Your task to perform on an android device: turn off picture-in-picture Image 0: 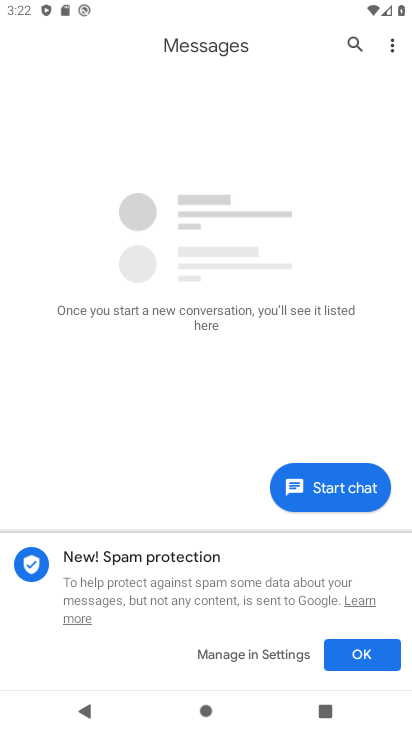
Step 0: press home button
Your task to perform on an android device: turn off picture-in-picture Image 1: 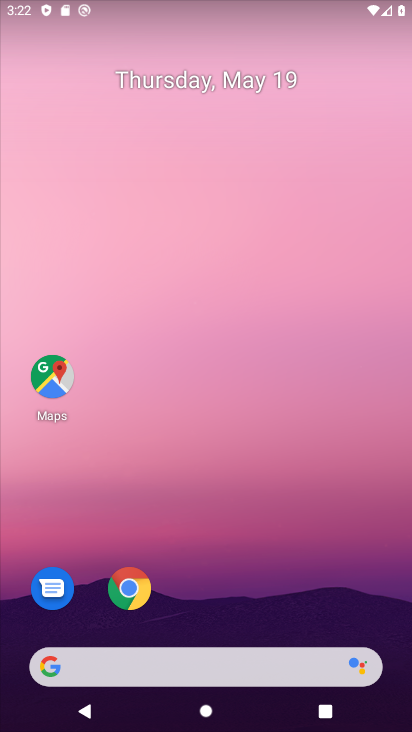
Step 1: drag from (237, 682) to (196, 35)
Your task to perform on an android device: turn off picture-in-picture Image 2: 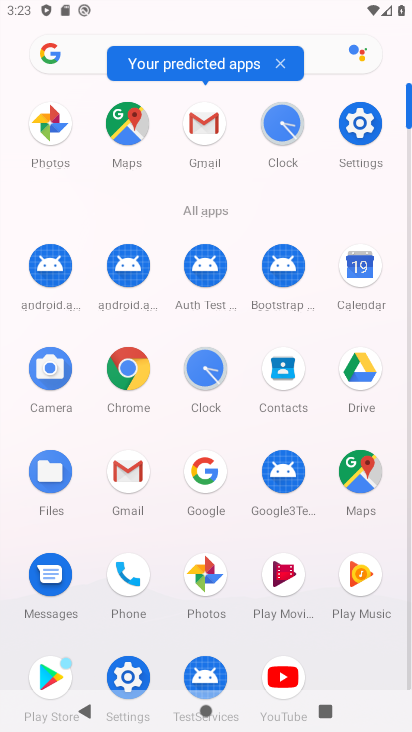
Step 2: click (361, 121)
Your task to perform on an android device: turn off picture-in-picture Image 3: 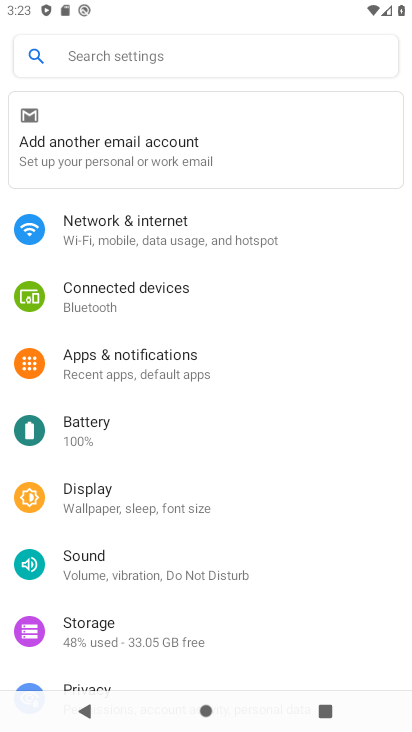
Step 3: click (181, 65)
Your task to perform on an android device: turn off picture-in-picture Image 4: 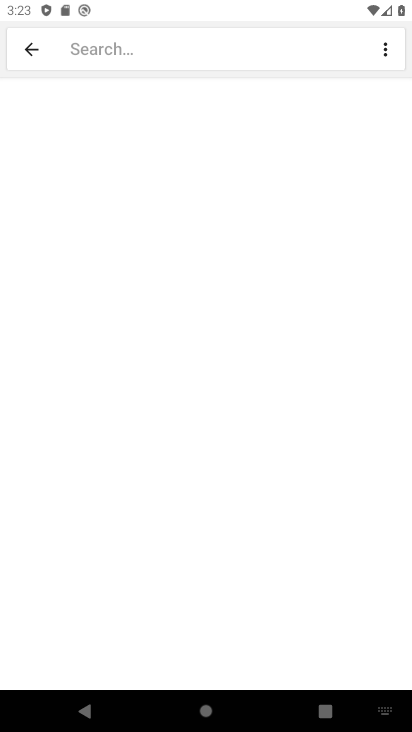
Step 4: drag from (378, 705) to (382, 625)
Your task to perform on an android device: turn off picture-in-picture Image 5: 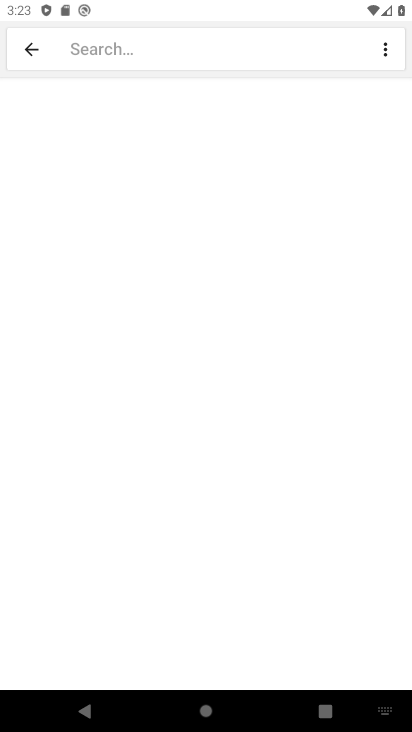
Step 5: click (388, 710)
Your task to perform on an android device: turn off picture-in-picture Image 6: 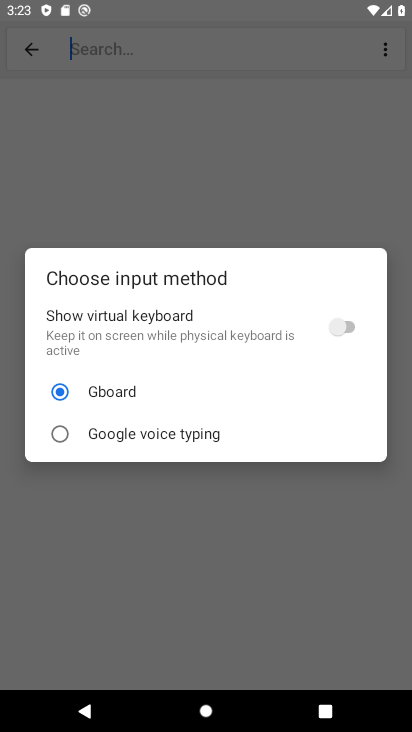
Step 6: click (342, 323)
Your task to perform on an android device: turn off picture-in-picture Image 7: 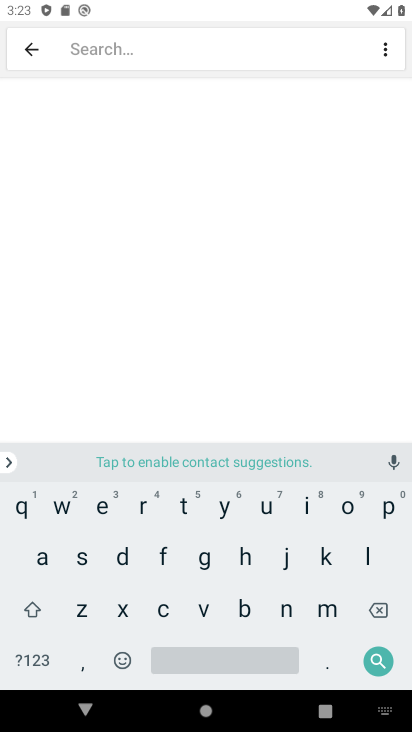
Step 7: click (382, 510)
Your task to perform on an android device: turn off picture-in-picture Image 8: 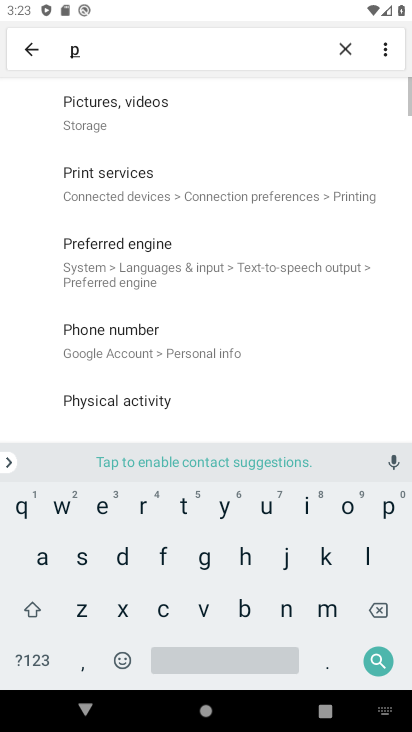
Step 8: click (306, 507)
Your task to perform on an android device: turn off picture-in-picture Image 9: 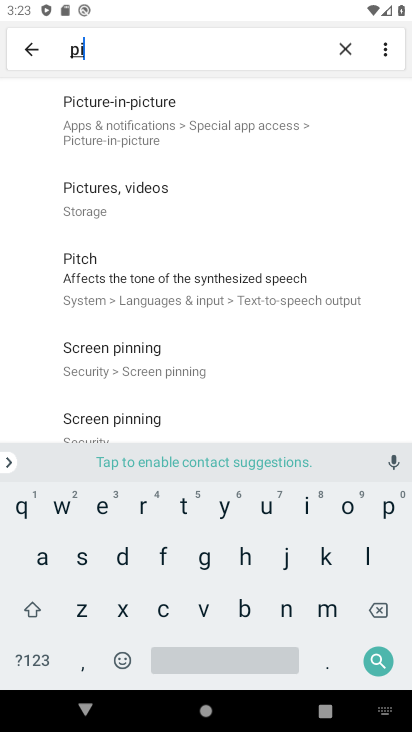
Step 9: click (162, 611)
Your task to perform on an android device: turn off picture-in-picture Image 10: 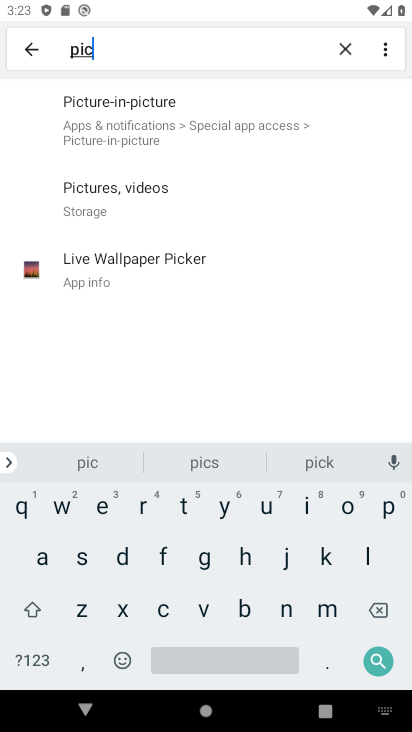
Step 10: click (144, 138)
Your task to perform on an android device: turn off picture-in-picture Image 11: 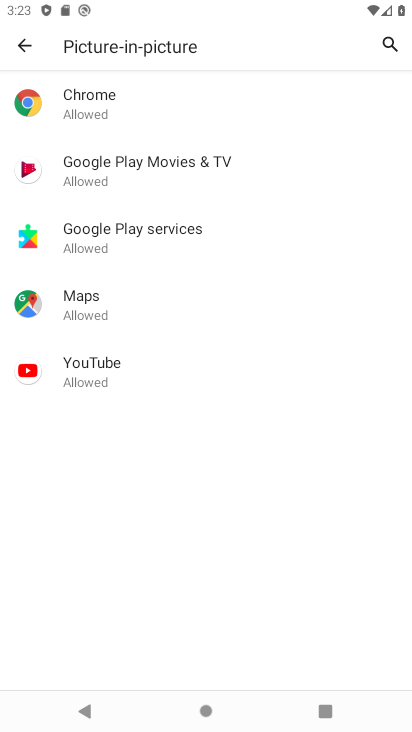
Step 11: task complete